Your task to perform on an android device: find photos in the google photos app Image 0: 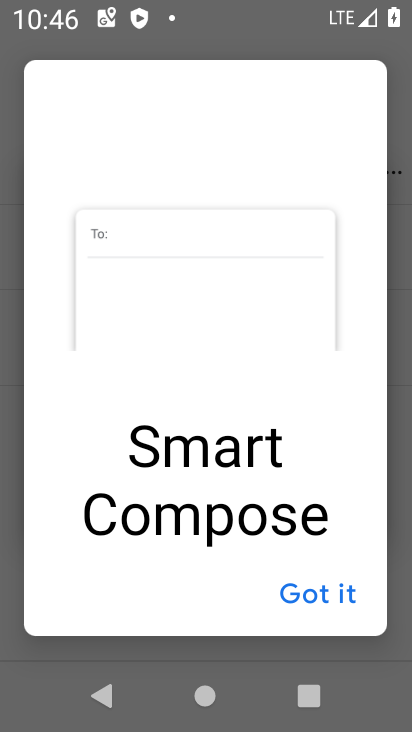
Step 0: press home button
Your task to perform on an android device: find photos in the google photos app Image 1: 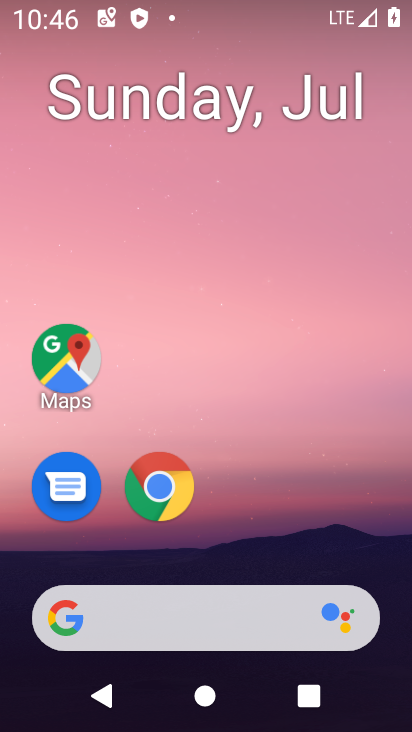
Step 1: drag from (367, 496) to (362, 116)
Your task to perform on an android device: find photos in the google photos app Image 2: 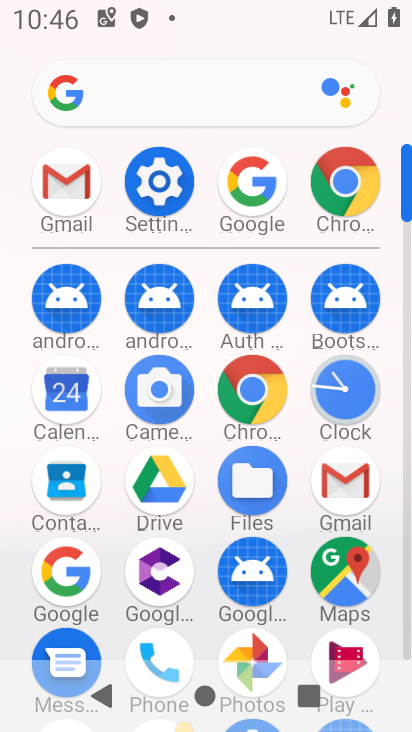
Step 2: drag from (393, 544) to (396, 332)
Your task to perform on an android device: find photos in the google photos app Image 3: 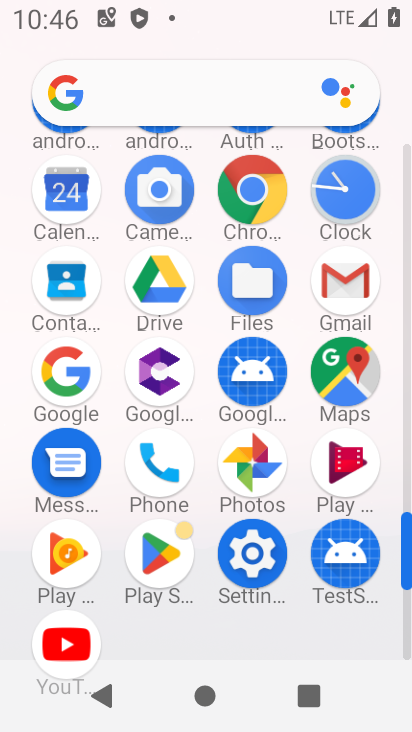
Step 3: click (252, 467)
Your task to perform on an android device: find photos in the google photos app Image 4: 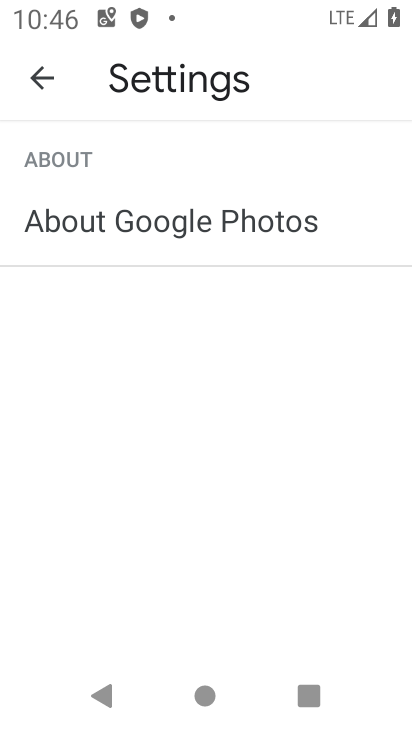
Step 4: press back button
Your task to perform on an android device: find photos in the google photos app Image 5: 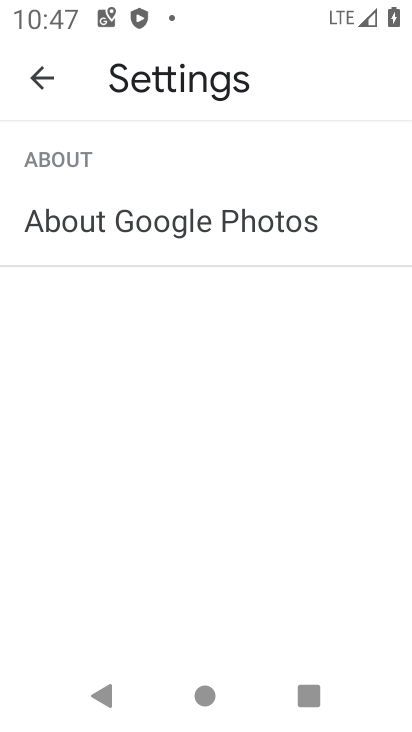
Step 5: press back button
Your task to perform on an android device: find photos in the google photos app Image 6: 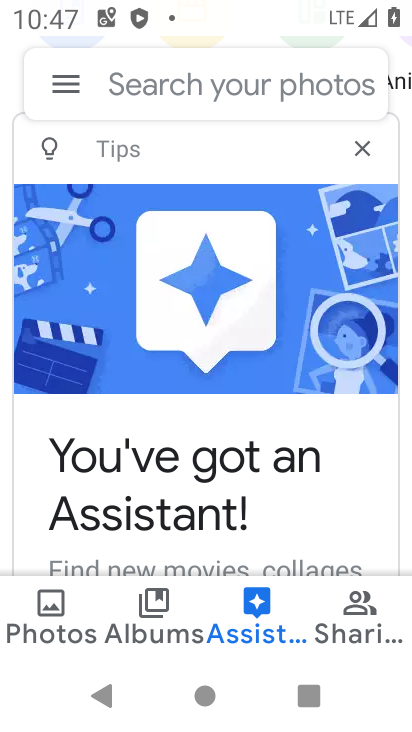
Step 6: click (57, 604)
Your task to perform on an android device: find photos in the google photos app Image 7: 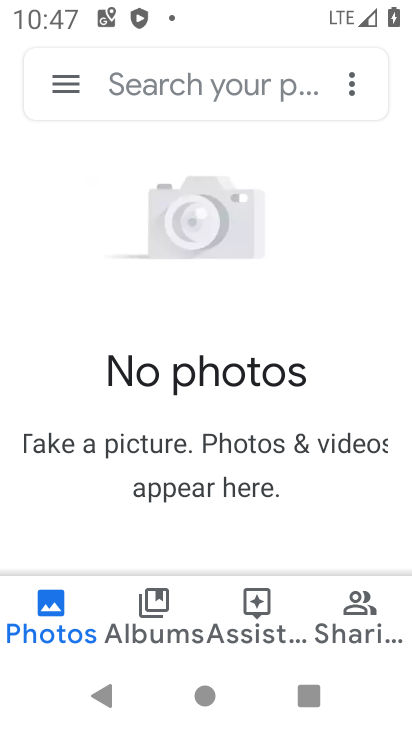
Step 7: task complete